Your task to perform on an android device: turn on airplane mode Image 0: 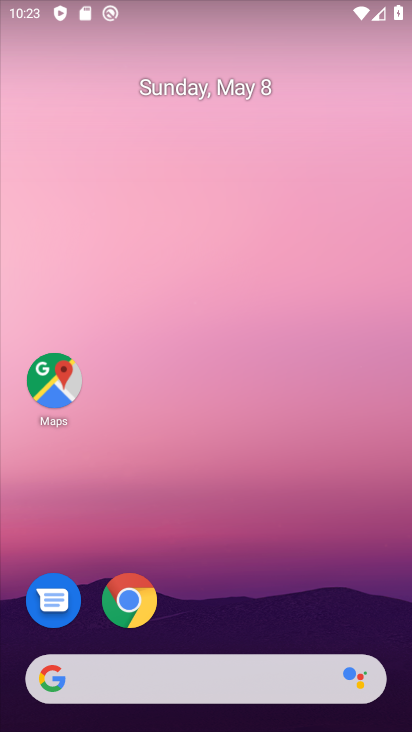
Step 0: drag from (199, 729) to (185, 100)
Your task to perform on an android device: turn on airplane mode Image 1: 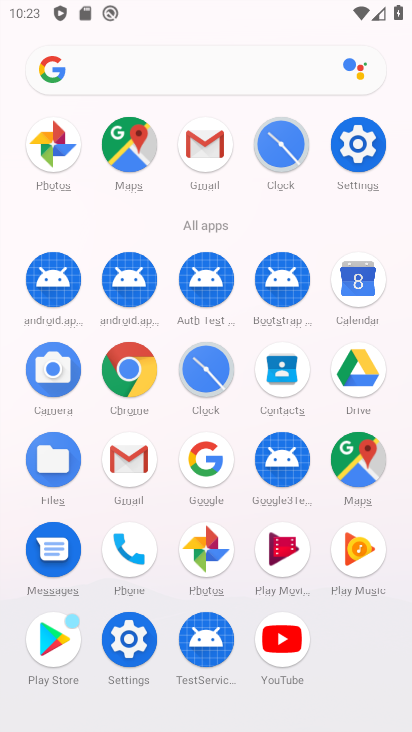
Step 1: click (352, 152)
Your task to perform on an android device: turn on airplane mode Image 2: 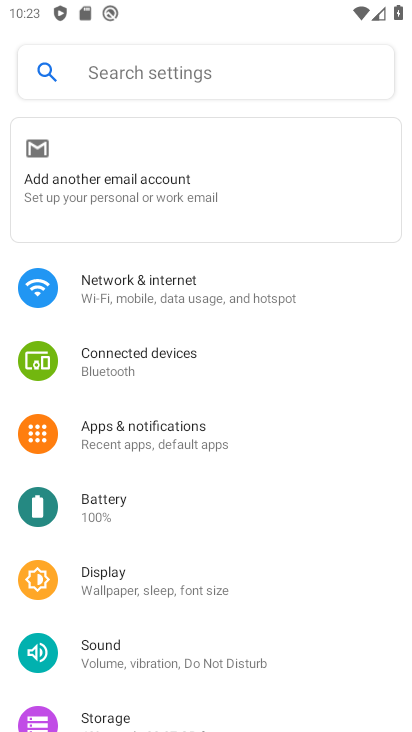
Step 2: click (144, 295)
Your task to perform on an android device: turn on airplane mode Image 3: 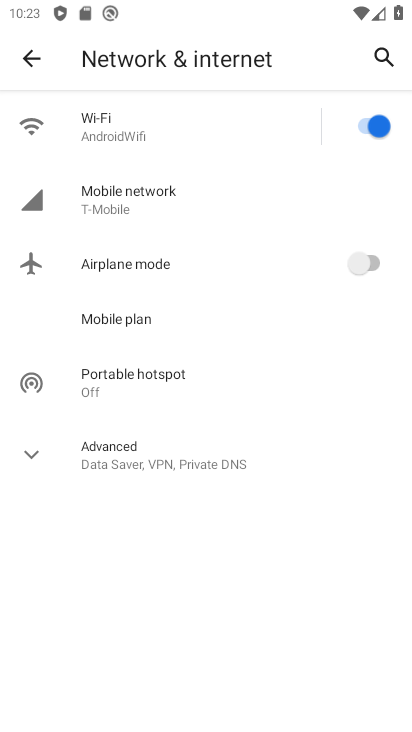
Step 3: click (368, 262)
Your task to perform on an android device: turn on airplane mode Image 4: 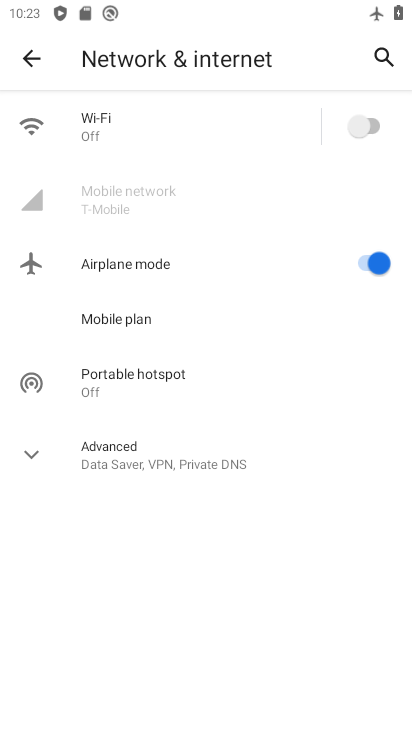
Step 4: task complete